Your task to perform on an android device: Open the web browser Image 0: 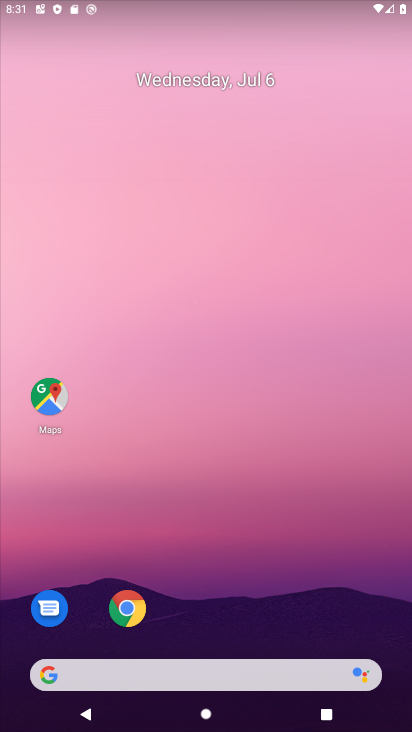
Step 0: click (126, 619)
Your task to perform on an android device: Open the web browser Image 1: 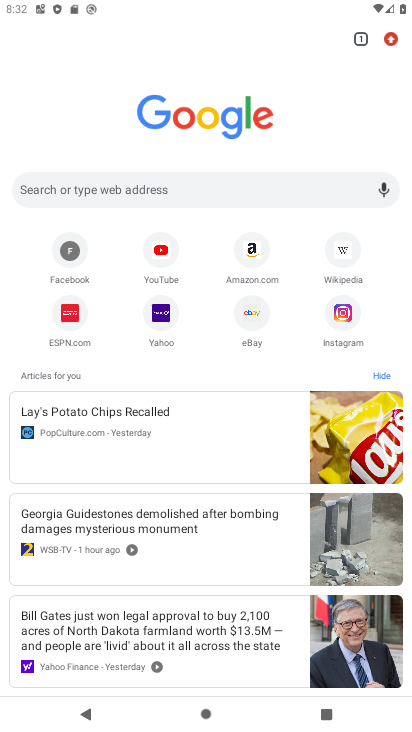
Step 1: task complete